Your task to perform on an android device: Open calendar and show me the second week of next month Image 0: 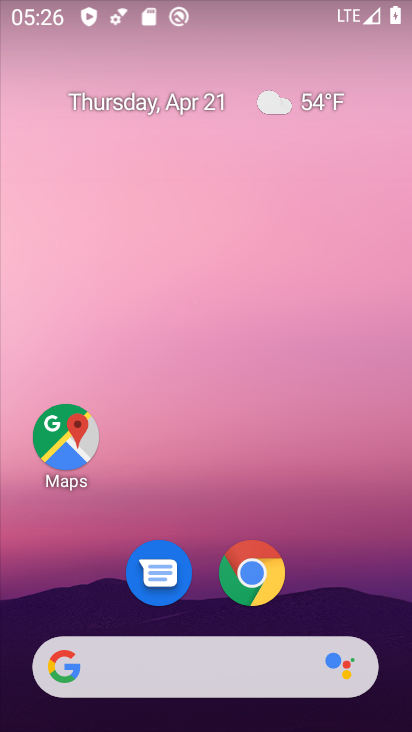
Step 0: drag from (396, 640) to (382, 304)
Your task to perform on an android device: Open calendar and show me the second week of next month Image 1: 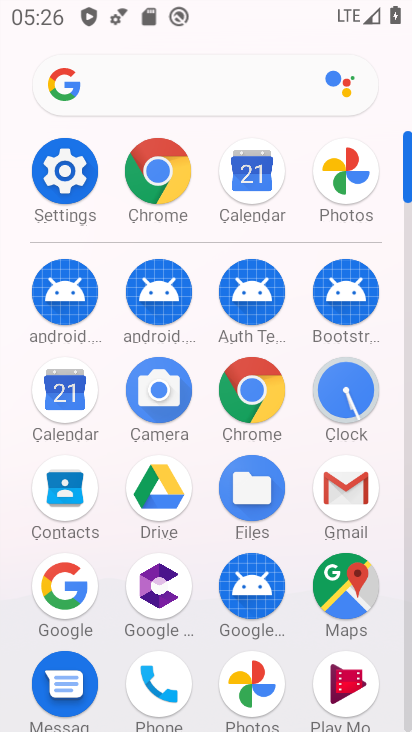
Step 1: click (65, 395)
Your task to perform on an android device: Open calendar and show me the second week of next month Image 2: 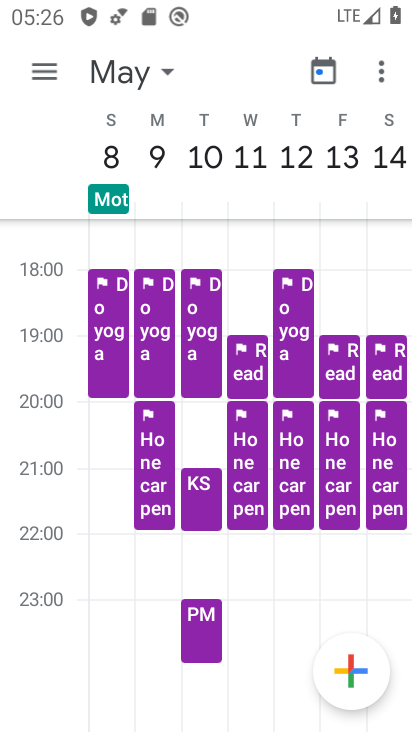
Step 2: task complete